Your task to perform on an android device: turn notification dots on Image 0: 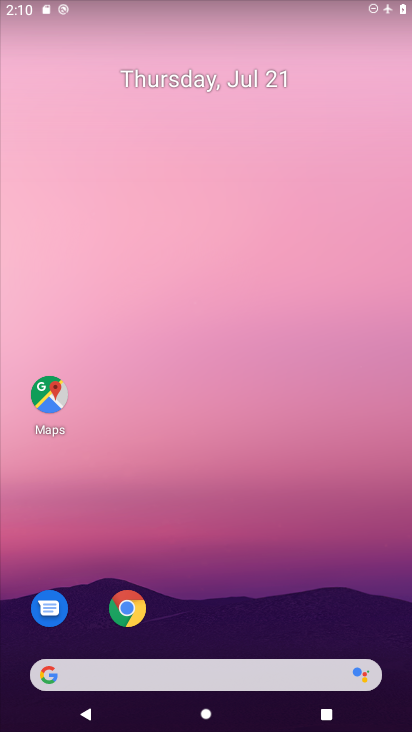
Step 0: drag from (242, 725) to (234, 43)
Your task to perform on an android device: turn notification dots on Image 1: 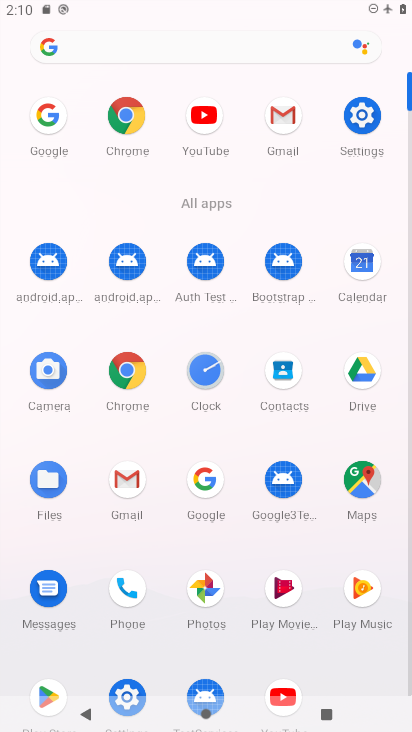
Step 1: click (369, 115)
Your task to perform on an android device: turn notification dots on Image 2: 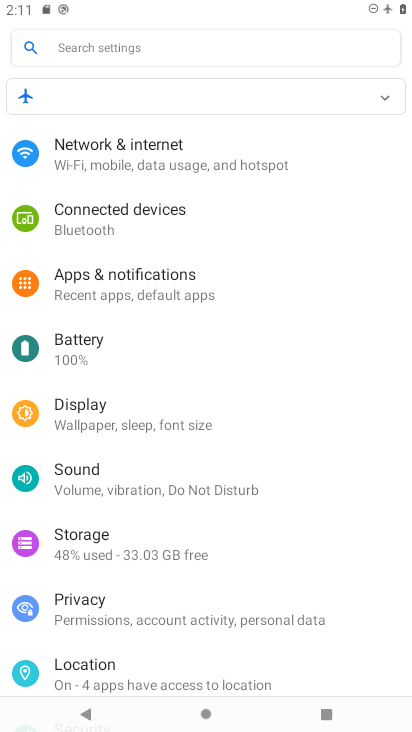
Step 2: click (137, 281)
Your task to perform on an android device: turn notification dots on Image 3: 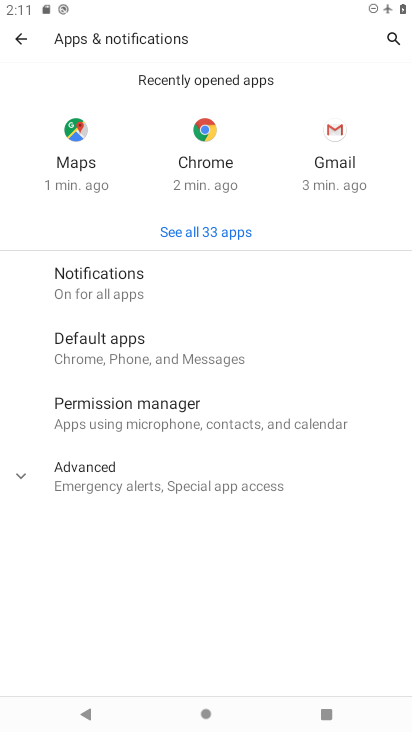
Step 3: click (93, 293)
Your task to perform on an android device: turn notification dots on Image 4: 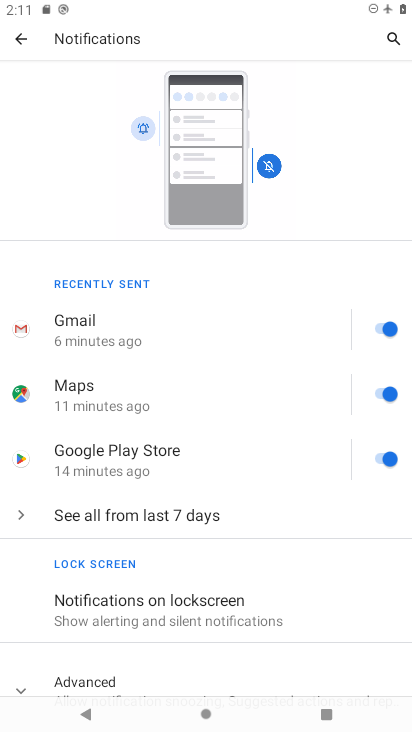
Step 4: drag from (167, 678) to (171, 335)
Your task to perform on an android device: turn notification dots on Image 5: 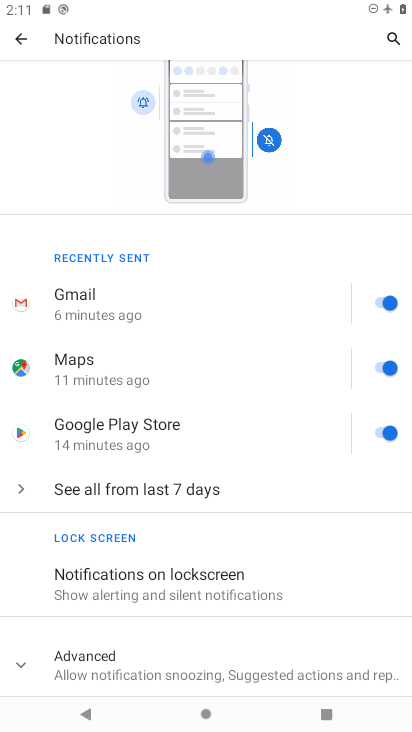
Step 5: click (95, 663)
Your task to perform on an android device: turn notification dots on Image 6: 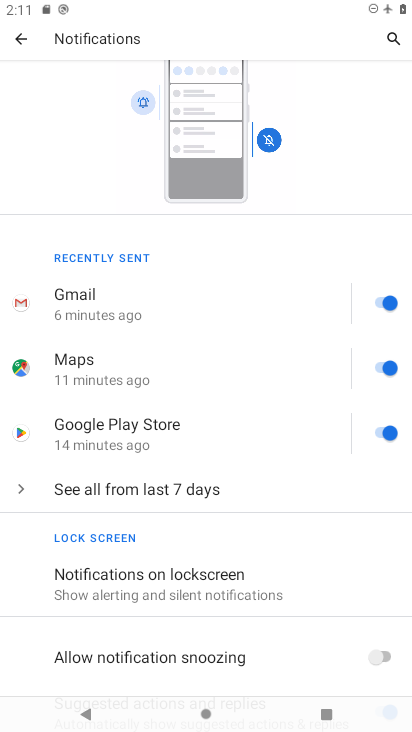
Step 6: task complete